Your task to perform on an android device: turn off improve location accuracy Image 0: 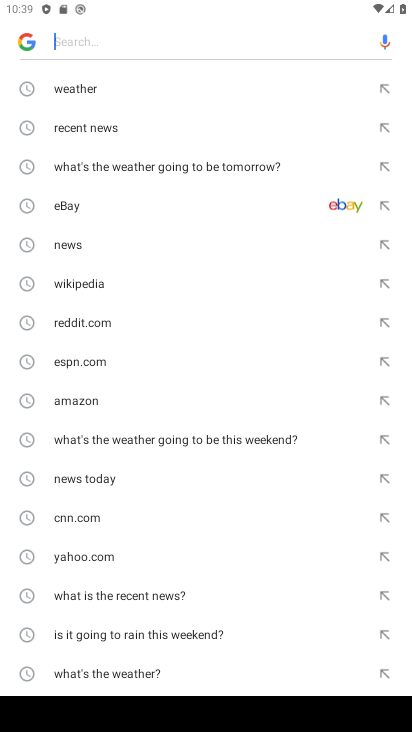
Step 0: drag from (315, 623) to (340, 190)
Your task to perform on an android device: turn off improve location accuracy Image 1: 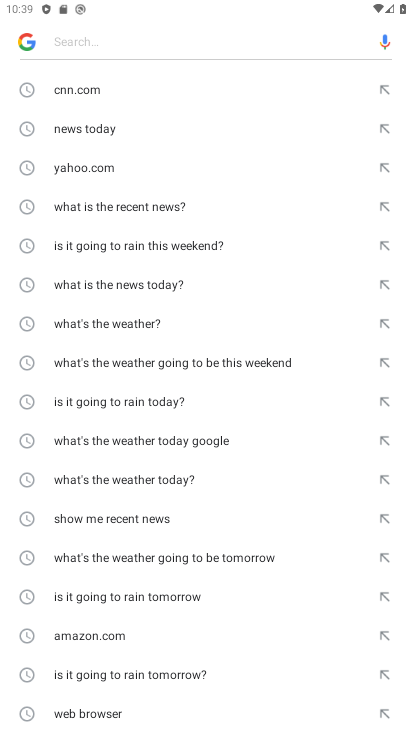
Step 1: press home button
Your task to perform on an android device: turn off improve location accuracy Image 2: 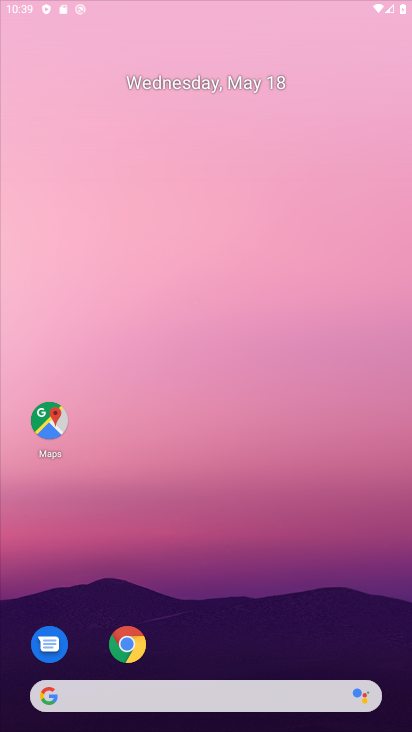
Step 2: drag from (336, 639) to (271, 34)
Your task to perform on an android device: turn off improve location accuracy Image 3: 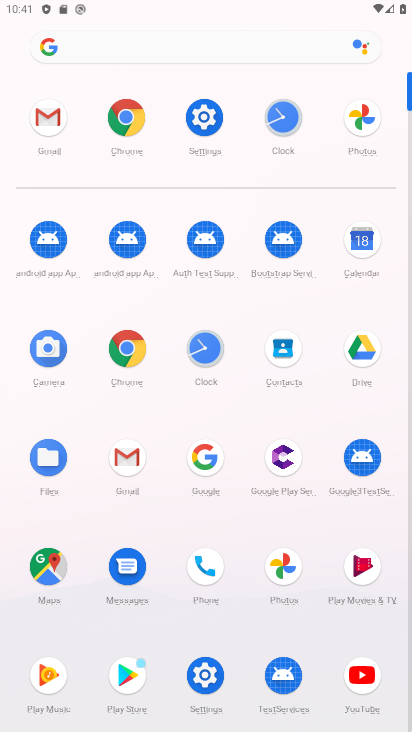
Step 3: click (223, 113)
Your task to perform on an android device: turn off improve location accuracy Image 4: 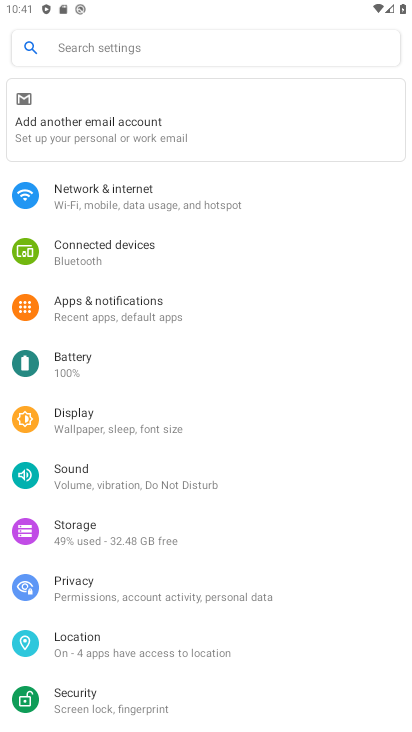
Step 4: click (117, 641)
Your task to perform on an android device: turn off improve location accuracy Image 5: 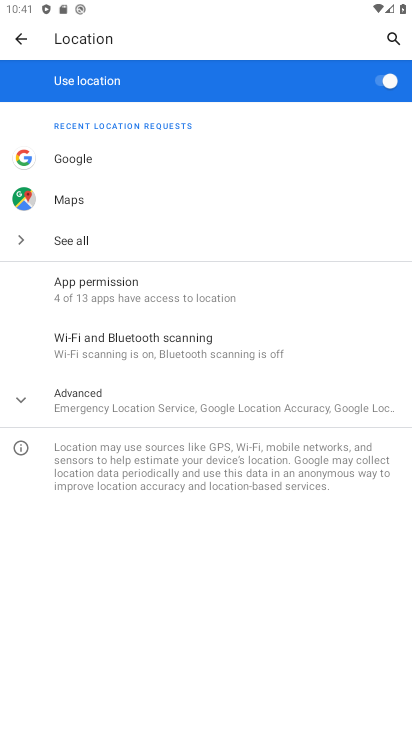
Step 5: click (124, 380)
Your task to perform on an android device: turn off improve location accuracy Image 6: 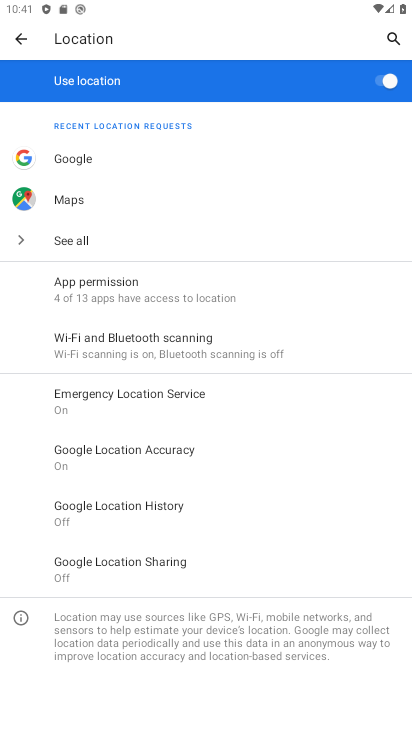
Step 6: click (188, 449)
Your task to perform on an android device: turn off improve location accuracy Image 7: 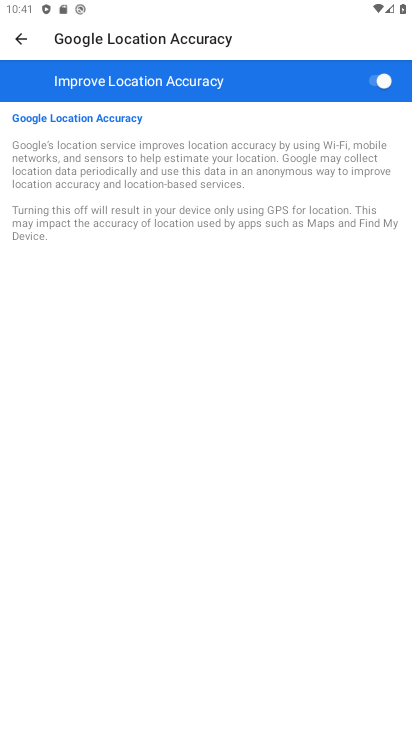
Step 7: click (360, 85)
Your task to perform on an android device: turn off improve location accuracy Image 8: 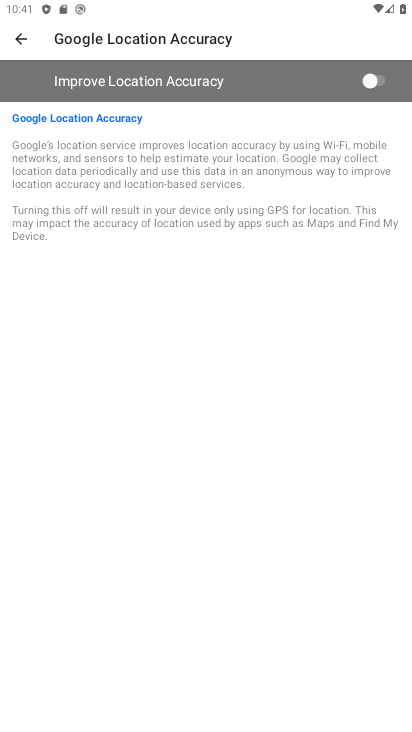
Step 8: task complete